Your task to perform on an android device: Open notification settings Image 0: 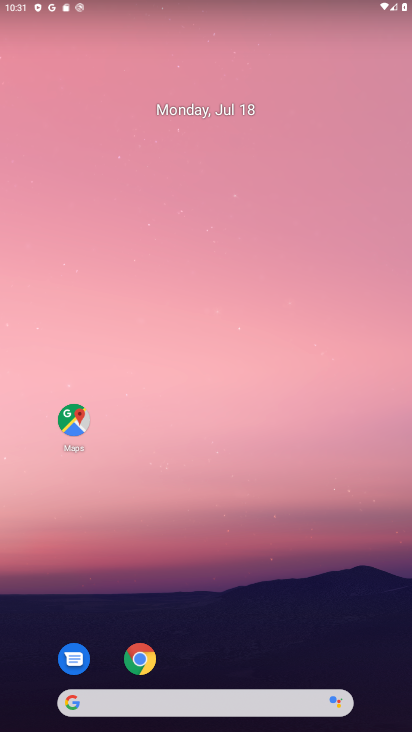
Step 0: press home button
Your task to perform on an android device: Open notification settings Image 1: 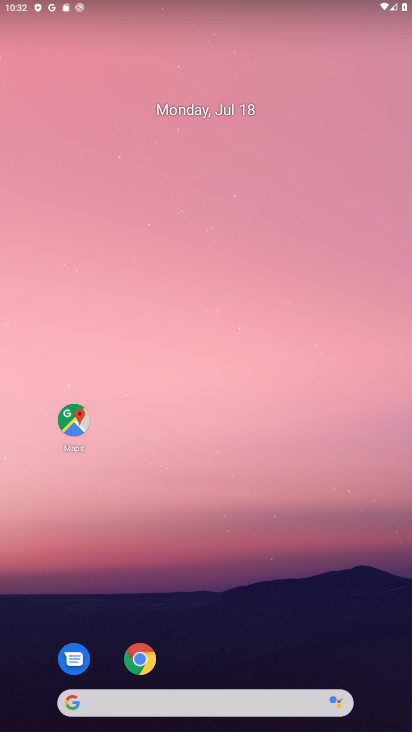
Step 1: drag from (343, 689) to (173, 148)
Your task to perform on an android device: Open notification settings Image 2: 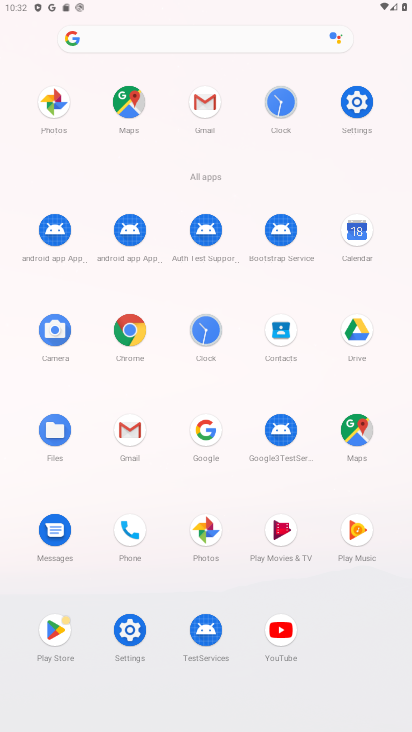
Step 2: click (139, 639)
Your task to perform on an android device: Open notification settings Image 3: 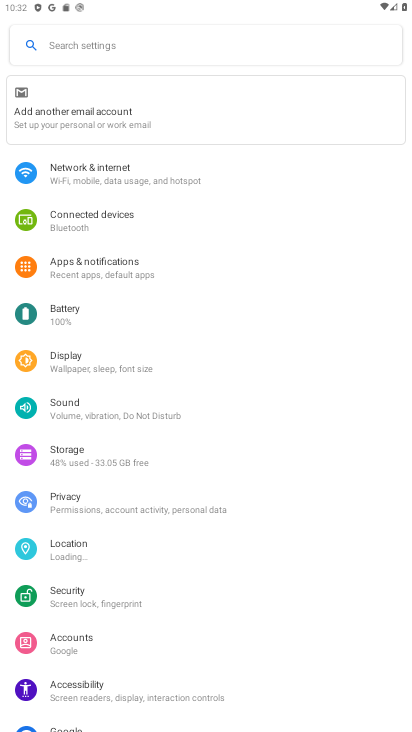
Step 3: click (116, 264)
Your task to perform on an android device: Open notification settings Image 4: 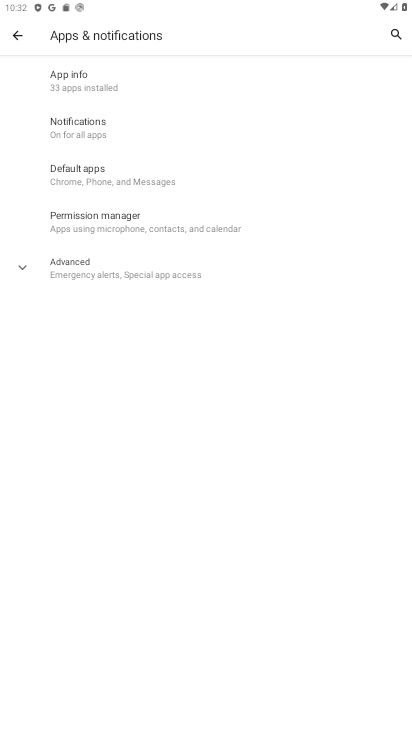
Step 4: click (55, 135)
Your task to perform on an android device: Open notification settings Image 5: 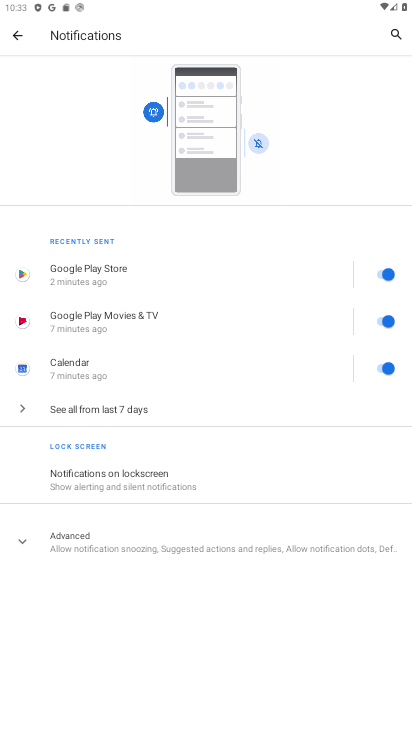
Step 5: task complete